Your task to perform on an android device: make emails show in primary in the gmail app Image 0: 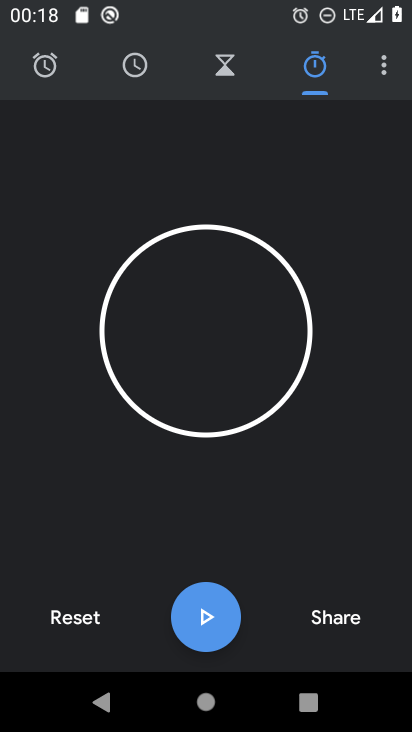
Step 0: press home button
Your task to perform on an android device: make emails show in primary in the gmail app Image 1: 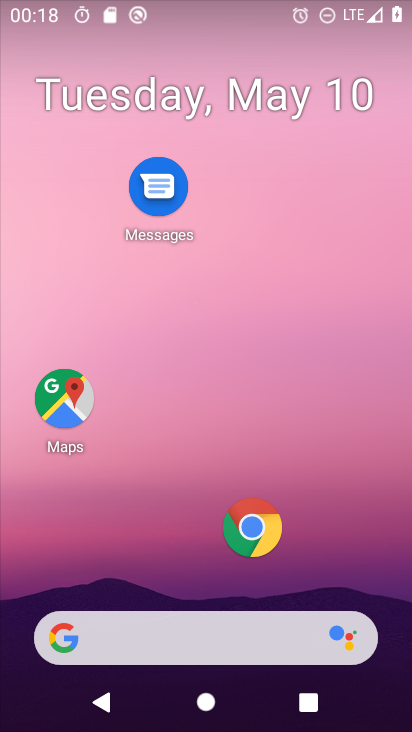
Step 1: drag from (147, 563) to (211, 67)
Your task to perform on an android device: make emails show in primary in the gmail app Image 2: 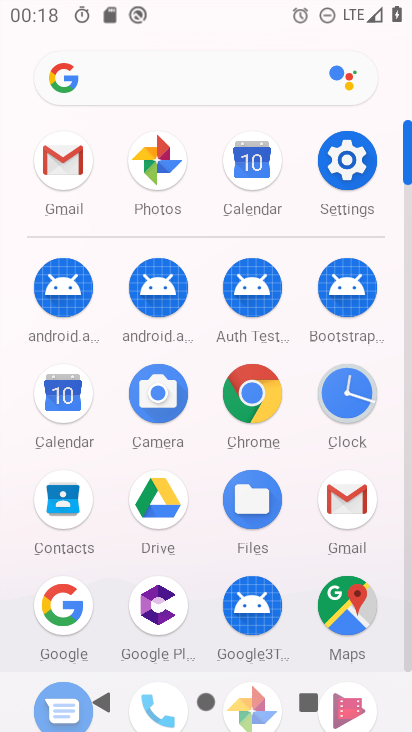
Step 2: click (68, 171)
Your task to perform on an android device: make emails show in primary in the gmail app Image 3: 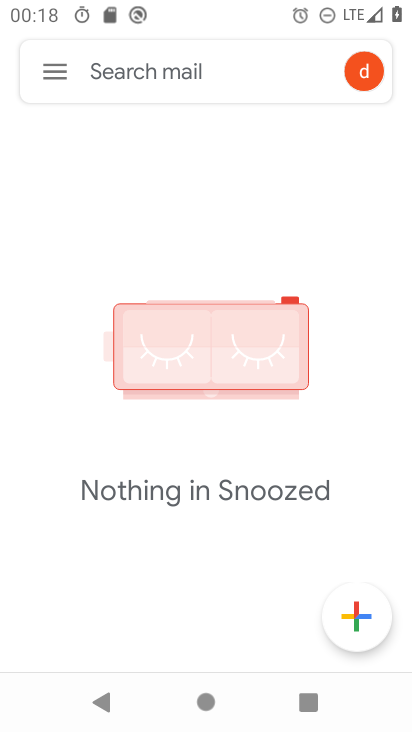
Step 3: click (60, 66)
Your task to perform on an android device: make emails show in primary in the gmail app Image 4: 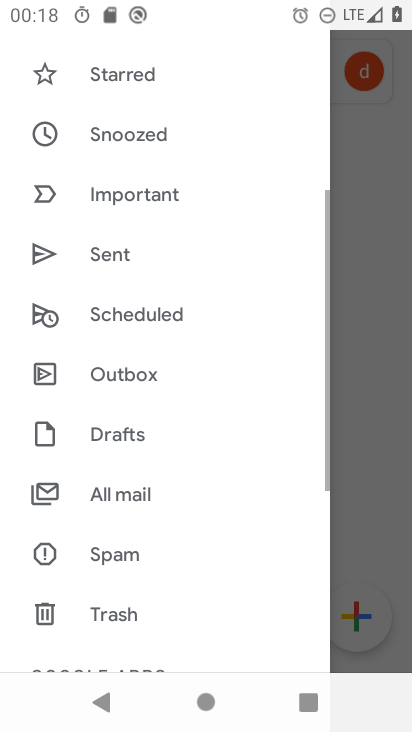
Step 4: drag from (172, 580) to (193, 45)
Your task to perform on an android device: make emails show in primary in the gmail app Image 5: 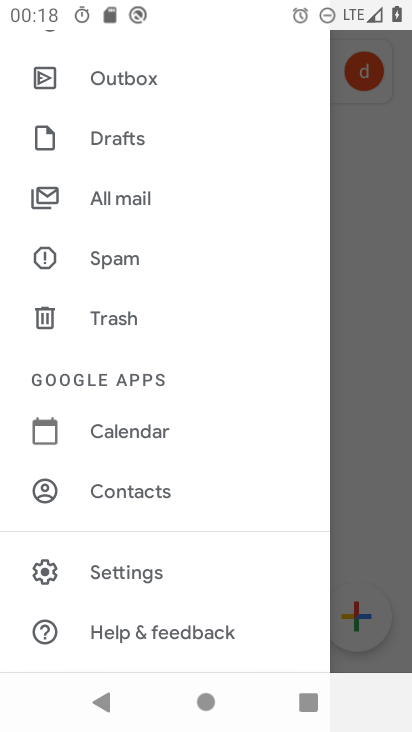
Step 5: click (149, 569)
Your task to perform on an android device: make emails show in primary in the gmail app Image 6: 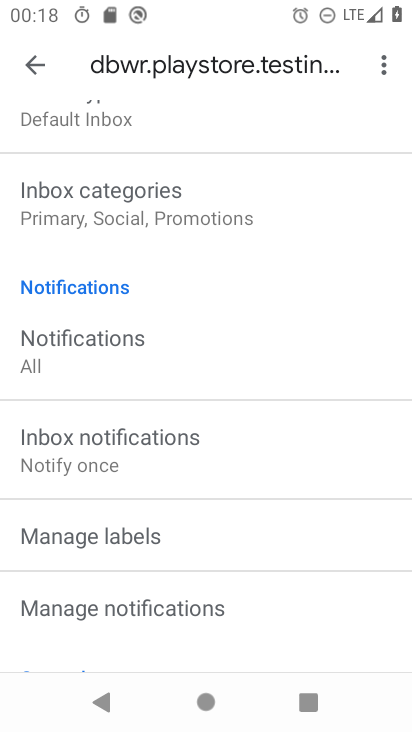
Step 6: click (72, 242)
Your task to perform on an android device: make emails show in primary in the gmail app Image 7: 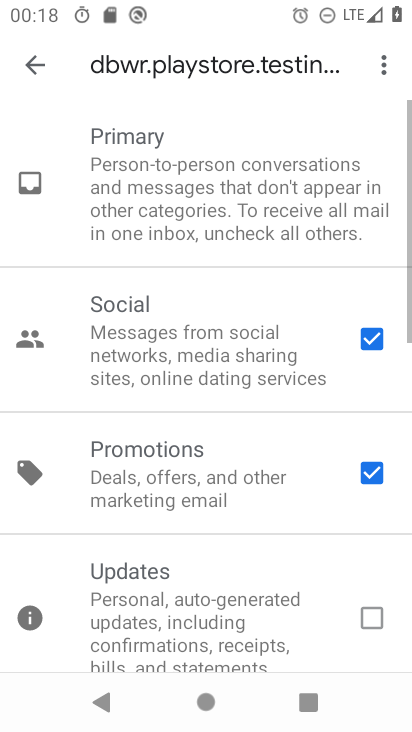
Step 7: click (360, 331)
Your task to perform on an android device: make emails show in primary in the gmail app Image 8: 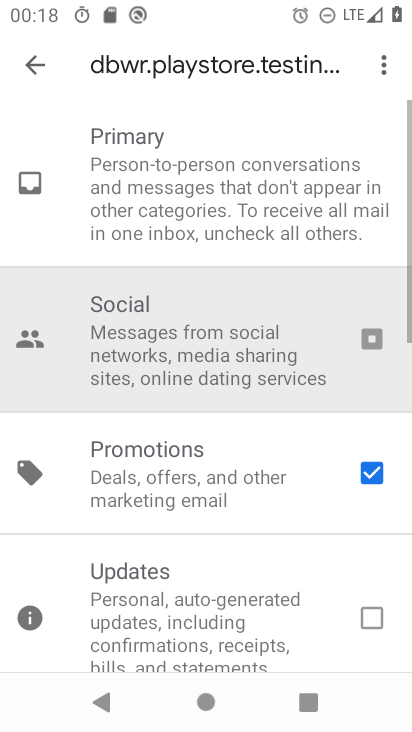
Step 8: click (375, 491)
Your task to perform on an android device: make emails show in primary in the gmail app Image 9: 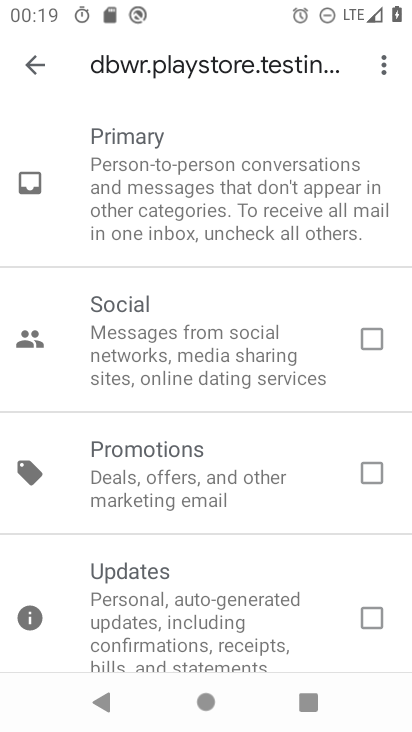
Step 9: task complete